Your task to perform on an android device: Turn on the flashlight Image 0: 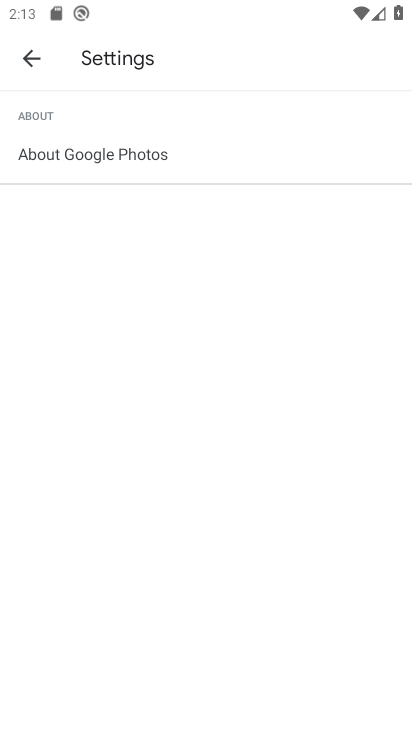
Step 0: press home button
Your task to perform on an android device: Turn on the flashlight Image 1: 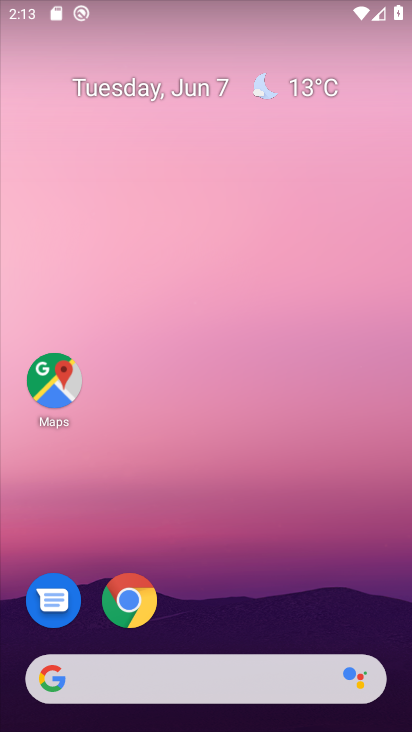
Step 1: drag from (218, 585) to (260, 4)
Your task to perform on an android device: Turn on the flashlight Image 2: 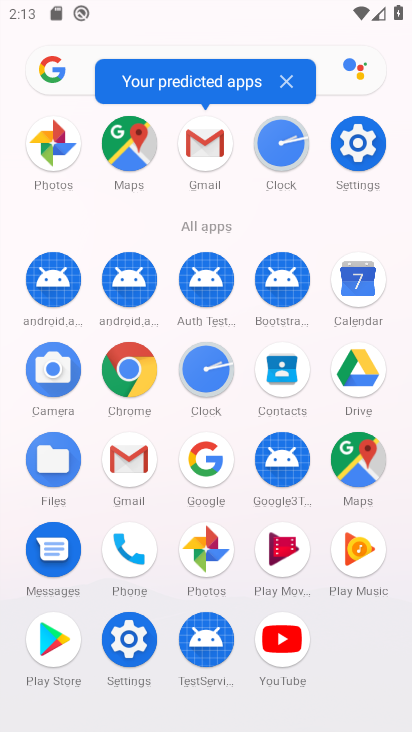
Step 2: click (357, 162)
Your task to perform on an android device: Turn on the flashlight Image 3: 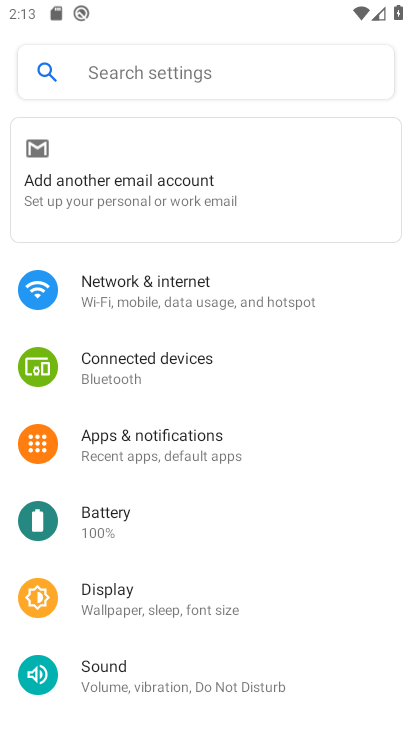
Step 3: click (156, 86)
Your task to perform on an android device: Turn on the flashlight Image 4: 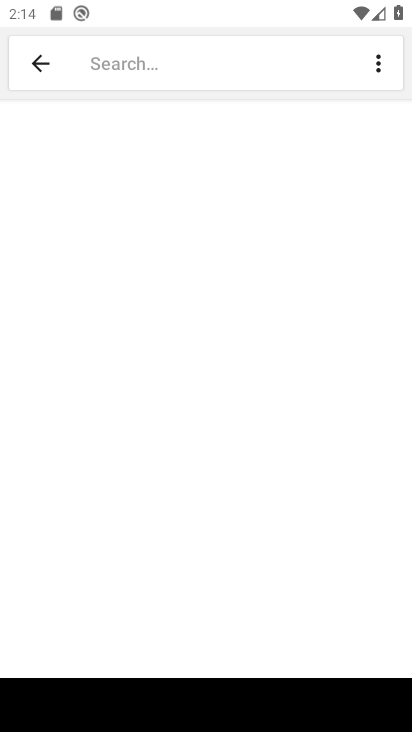
Step 4: type "flashlght"
Your task to perform on an android device: Turn on the flashlight Image 5: 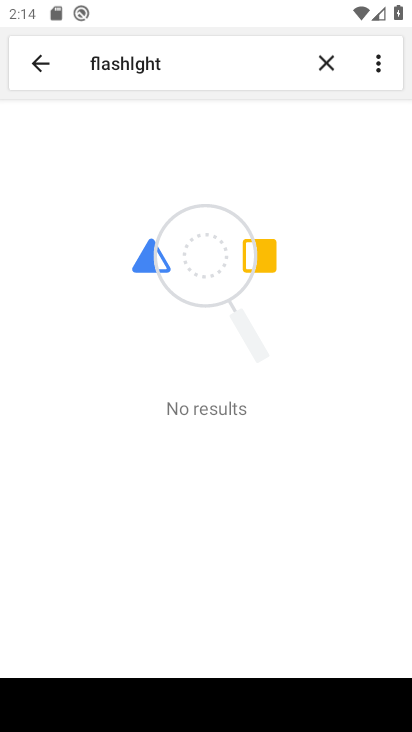
Step 5: click (131, 58)
Your task to perform on an android device: Turn on the flashlight Image 6: 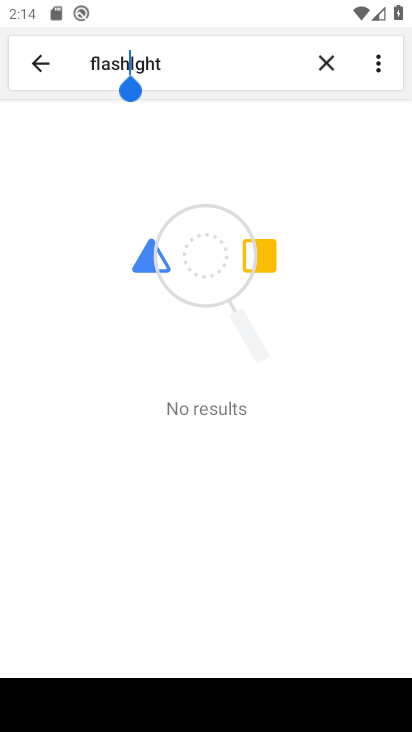
Step 6: click (135, 66)
Your task to perform on an android device: Turn on the flashlight Image 7: 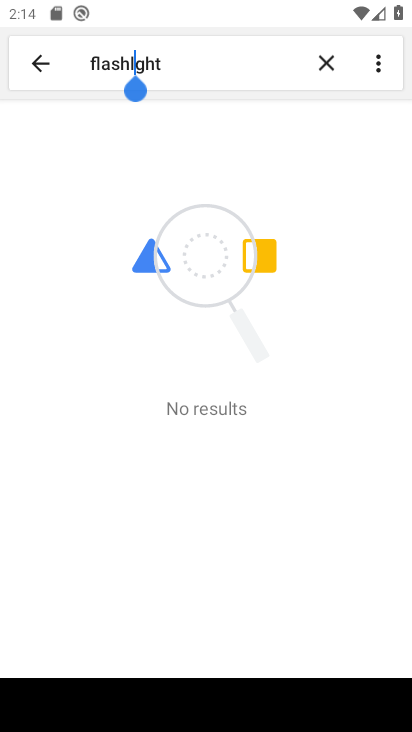
Step 7: type "i"
Your task to perform on an android device: Turn on the flashlight Image 8: 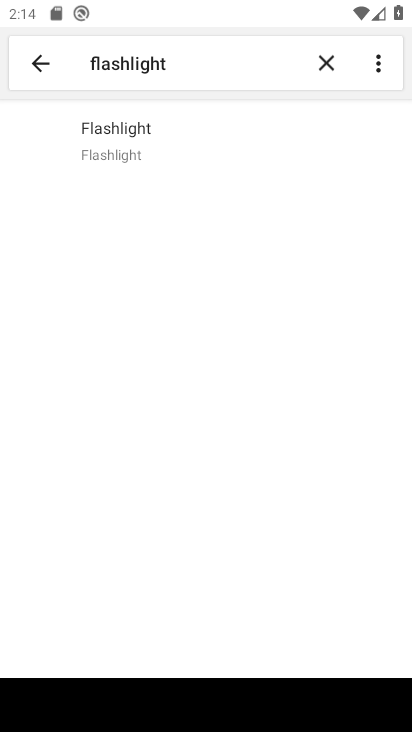
Step 8: click (112, 142)
Your task to perform on an android device: Turn on the flashlight Image 9: 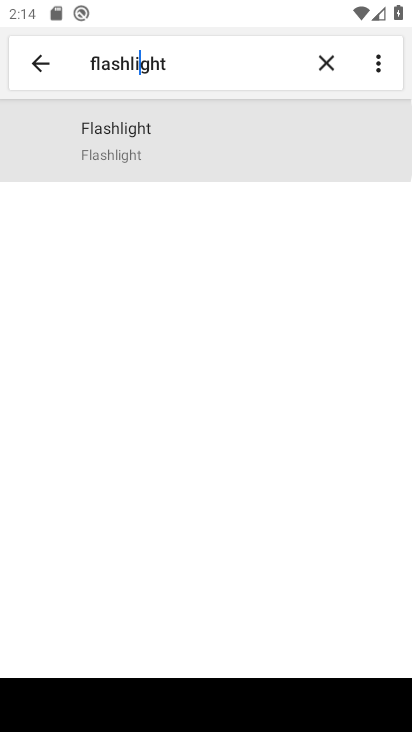
Step 9: click (113, 143)
Your task to perform on an android device: Turn on the flashlight Image 10: 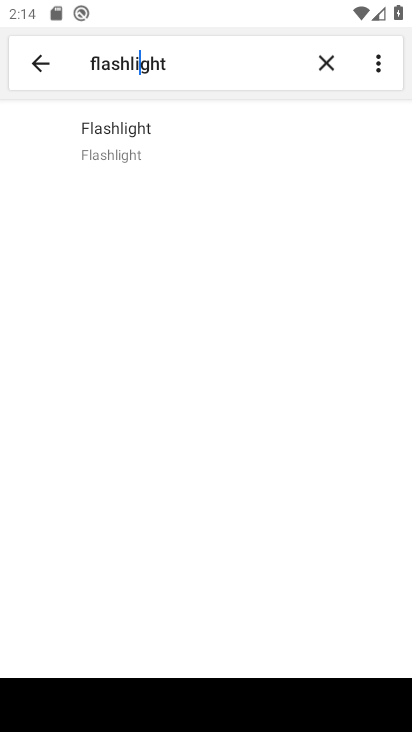
Step 10: click (113, 143)
Your task to perform on an android device: Turn on the flashlight Image 11: 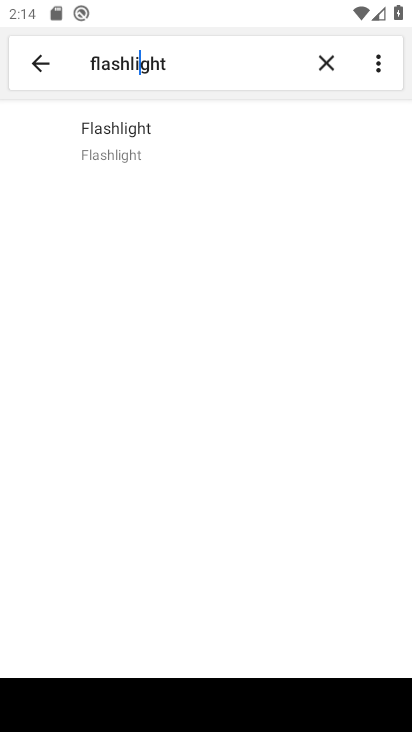
Step 11: task complete